Your task to perform on an android device: Open Google Chrome Image 0: 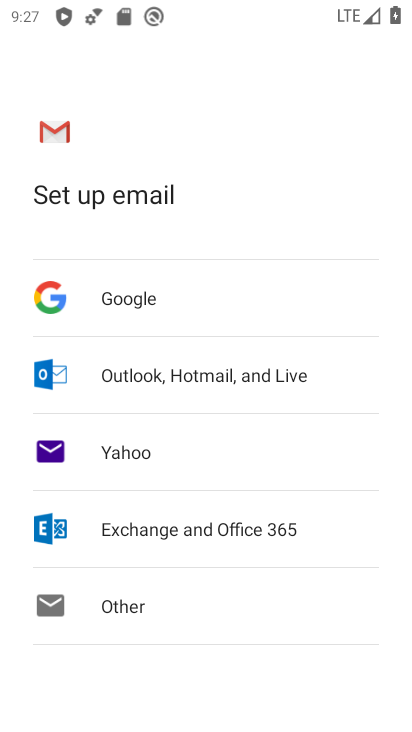
Step 0: press home button
Your task to perform on an android device: Open Google Chrome Image 1: 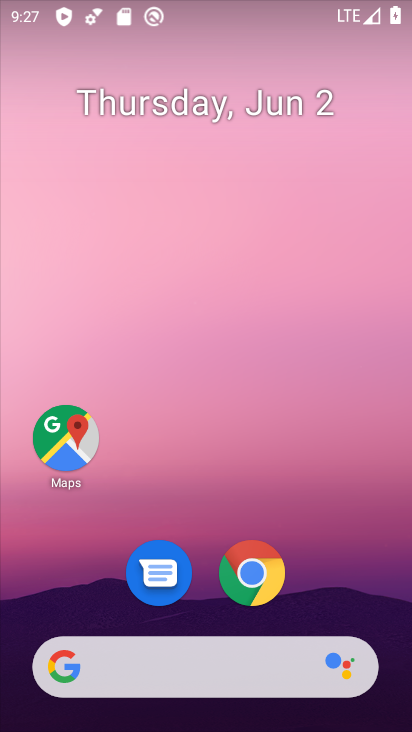
Step 1: click (248, 573)
Your task to perform on an android device: Open Google Chrome Image 2: 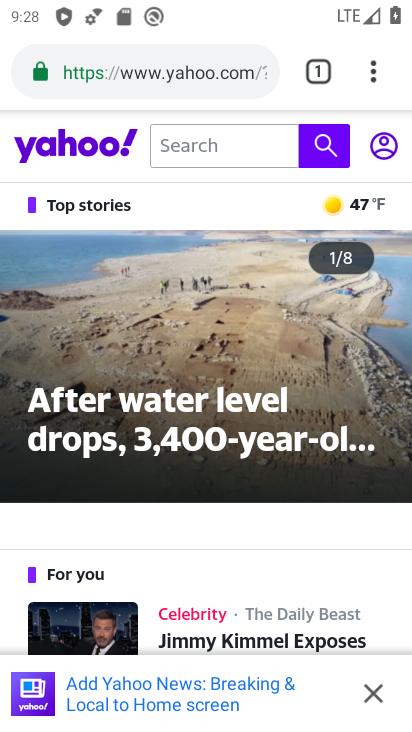
Step 2: task complete